Your task to perform on an android device: Go to Android settings Image 0: 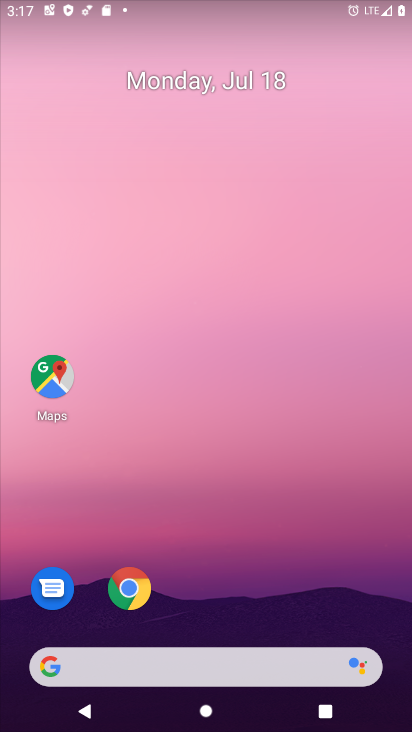
Step 0: drag from (219, 666) to (276, 115)
Your task to perform on an android device: Go to Android settings Image 1: 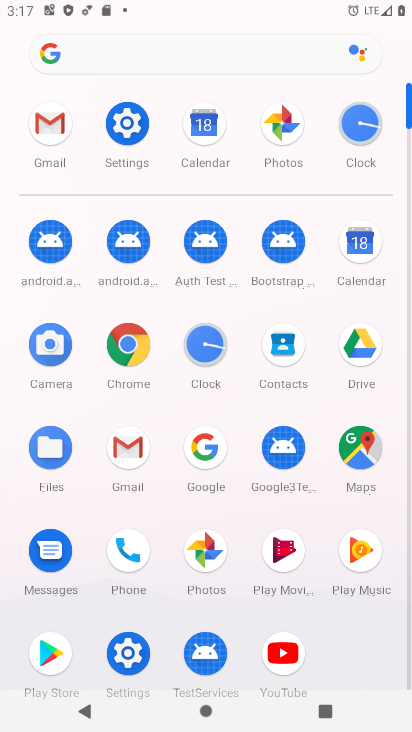
Step 1: click (117, 121)
Your task to perform on an android device: Go to Android settings Image 2: 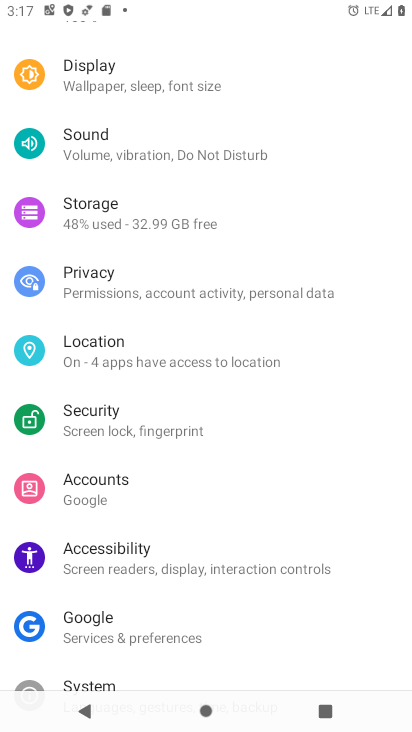
Step 2: drag from (186, 587) to (345, 14)
Your task to perform on an android device: Go to Android settings Image 3: 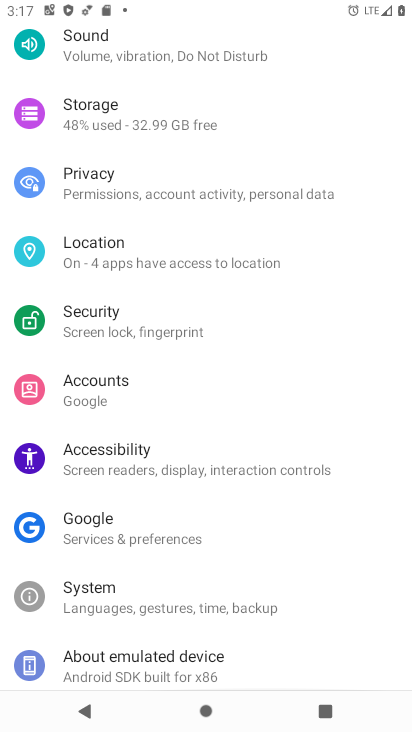
Step 3: drag from (177, 594) to (300, 15)
Your task to perform on an android device: Go to Android settings Image 4: 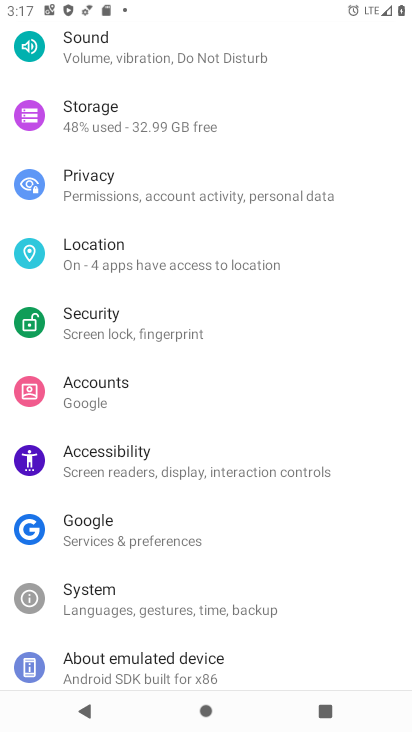
Step 4: click (110, 673)
Your task to perform on an android device: Go to Android settings Image 5: 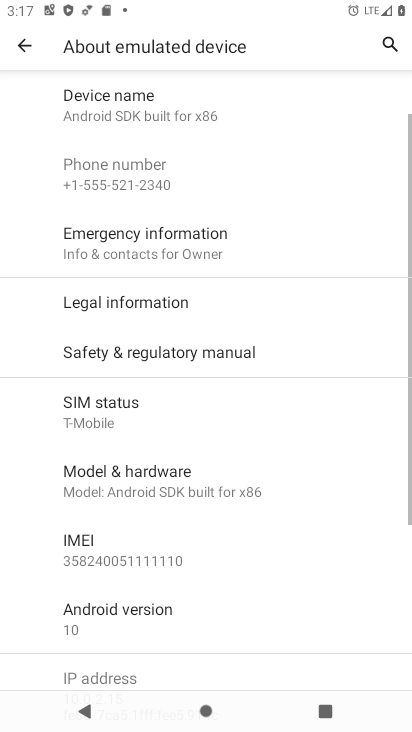
Step 5: click (158, 598)
Your task to perform on an android device: Go to Android settings Image 6: 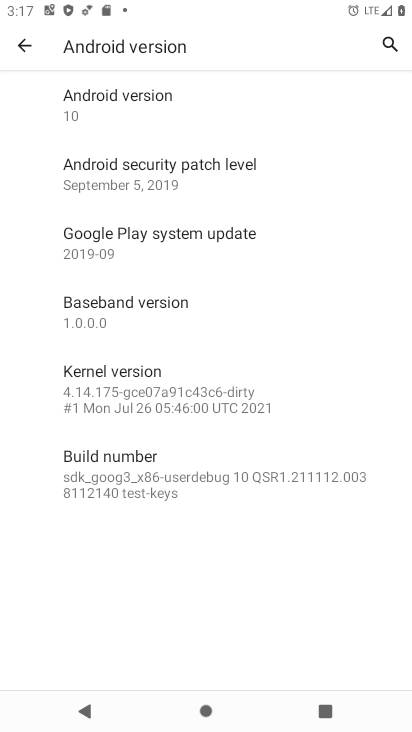
Step 6: task complete